Your task to perform on an android device: When is my next appointment? Image 0: 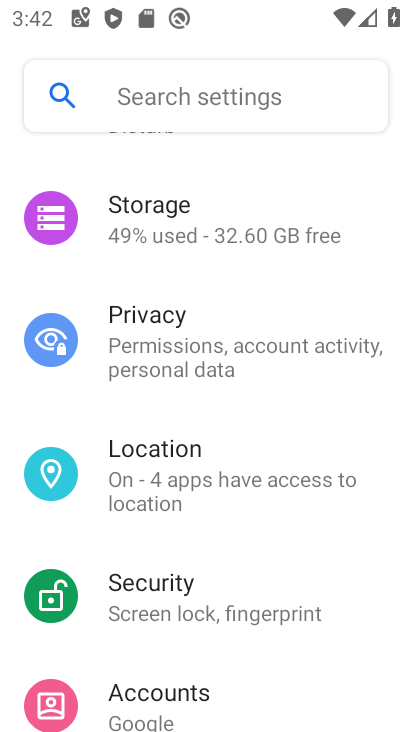
Step 0: press home button
Your task to perform on an android device: When is my next appointment? Image 1: 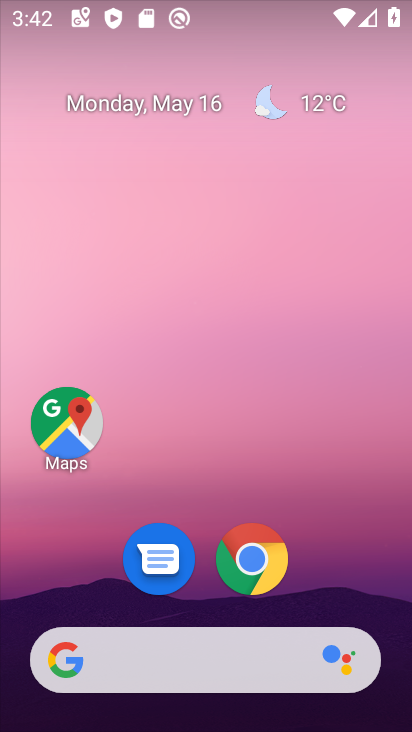
Step 1: drag from (313, 586) to (299, 9)
Your task to perform on an android device: When is my next appointment? Image 2: 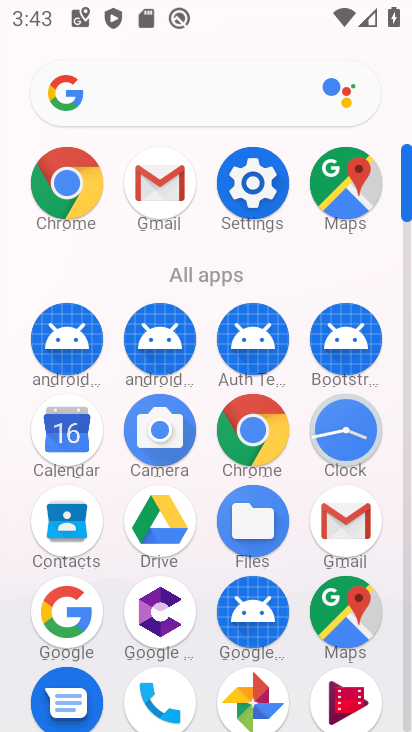
Step 2: click (86, 448)
Your task to perform on an android device: When is my next appointment? Image 3: 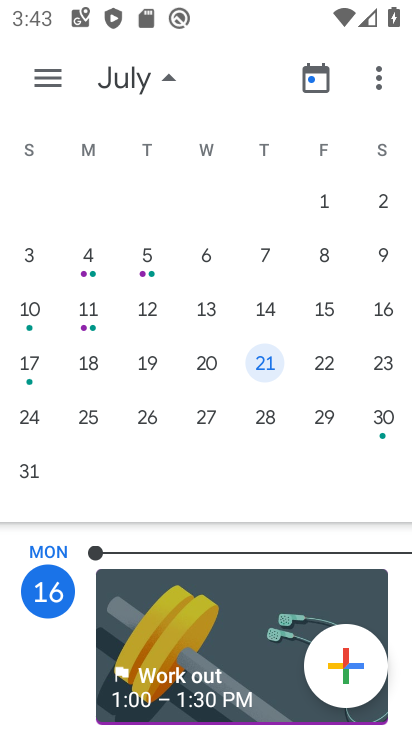
Step 3: drag from (4, 222) to (392, 171)
Your task to perform on an android device: When is my next appointment? Image 4: 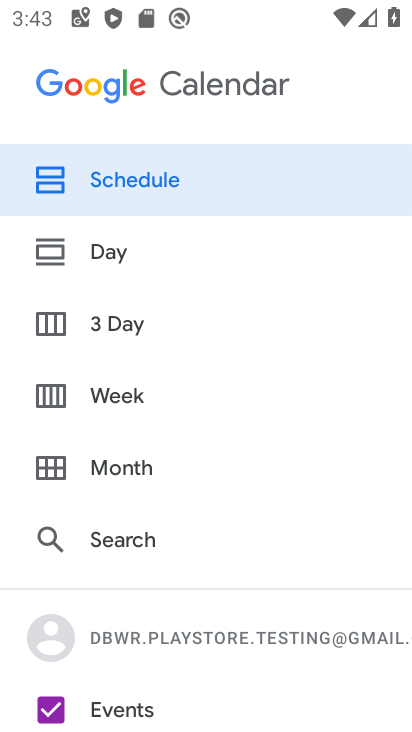
Step 4: click (99, 169)
Your task to perform on an android device: When is my next appointment? Image 5: 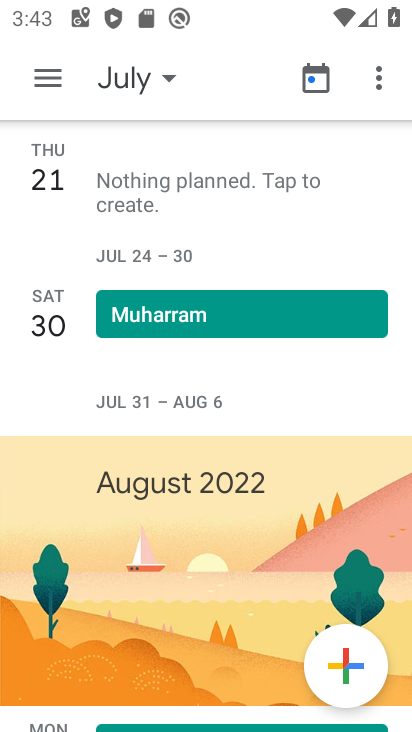
Step 5: click (136, 76)
Your task to perform on an android device: When is my next appointment? Image 6: 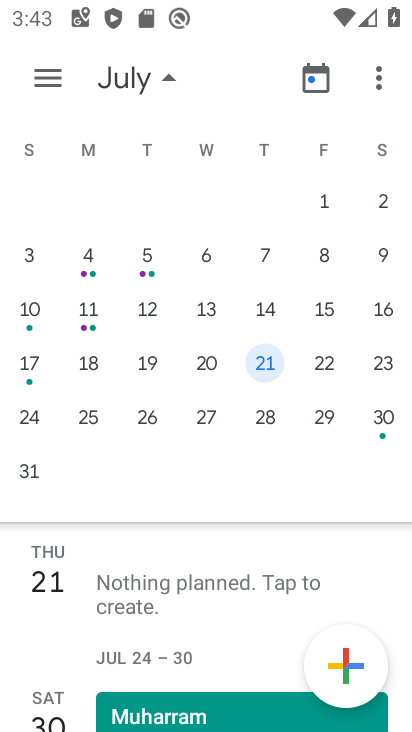
Step 6: drag from (106, 219) to (344, 214)
Your task to perform on an android device: When is my next appointment? Image 7: 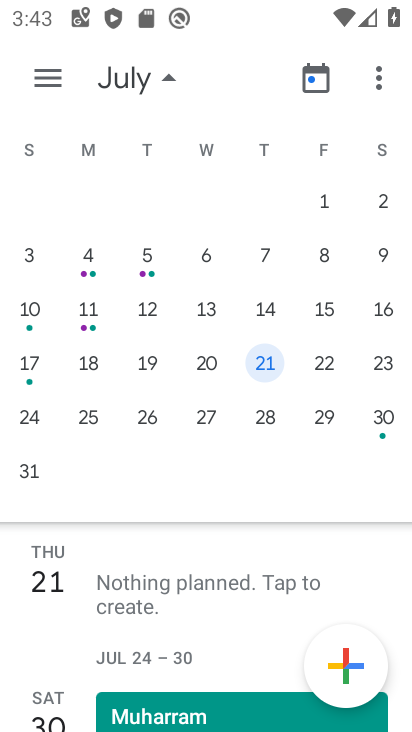
Step 7: drag from (58, 266) to (399, 303)
Your task to perform on an android device: When is my next appointment? Image 8: 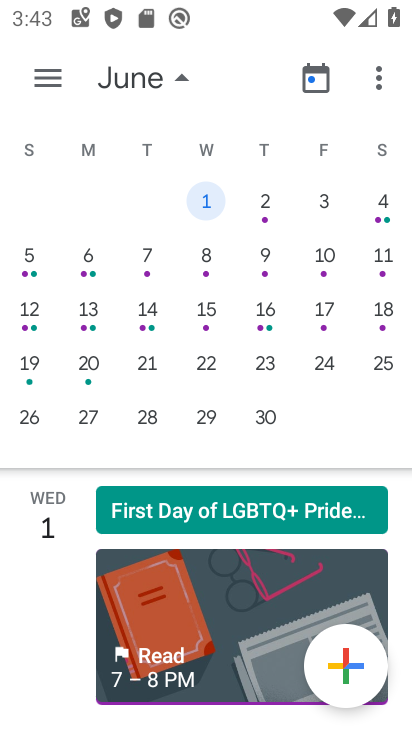
Step 8: drag from (37, 245) to (387, 223)
Your task to perform on an android device: When is my next appointment? Image 9: 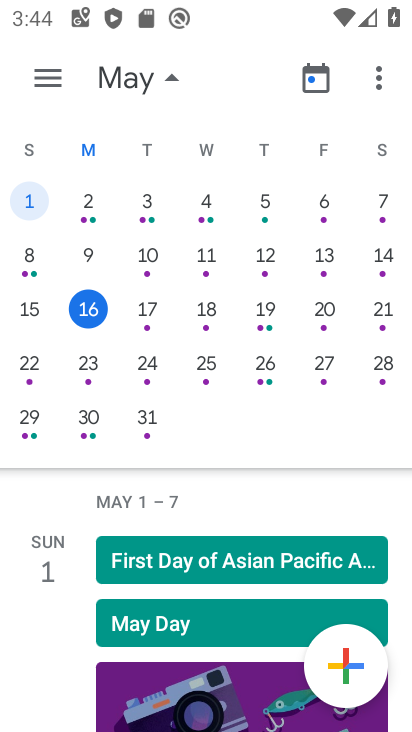
Step 9: click (217, 366)
Your task to perform on an android device: When is my next appointment? Image 10: 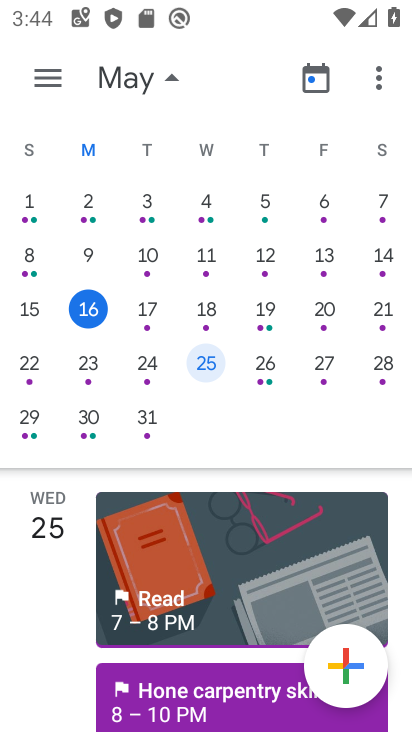
Step 10: click (49, 105)
Your task to perform on an android device: When is my next appointment? Image 11: 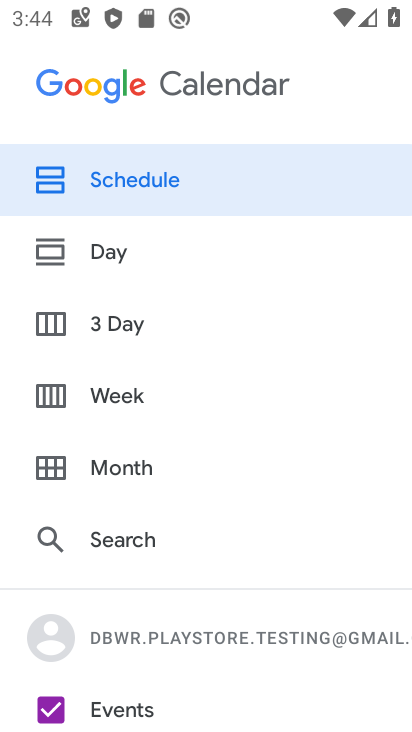
Step 11: click (110, 481)
Your task to perform on an android device: When is my next appointment? Image 12: 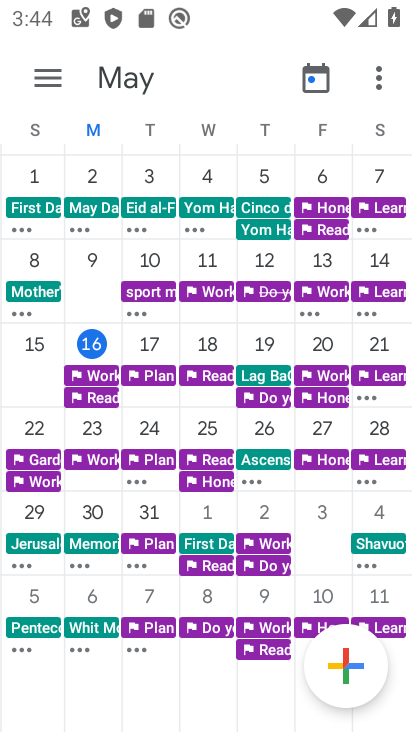
Step 12: task complete